Your task to perform on an android device: see creations saved in the google photos Image 0: 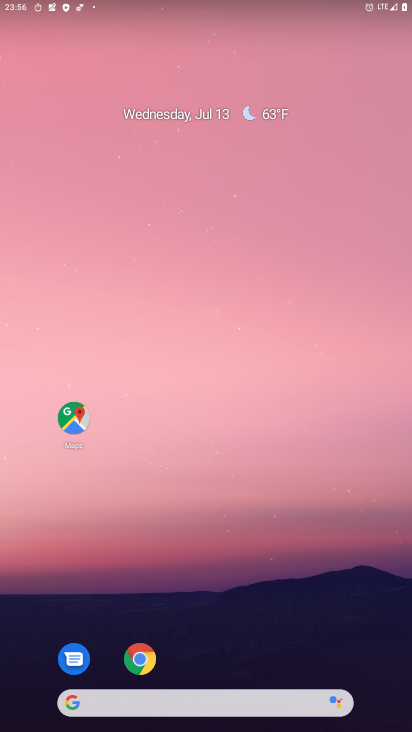
Step 0: drag from (292, 614) to (300, 78)
Your task to perform on an android device: see creations saved in the google photos Image 1: 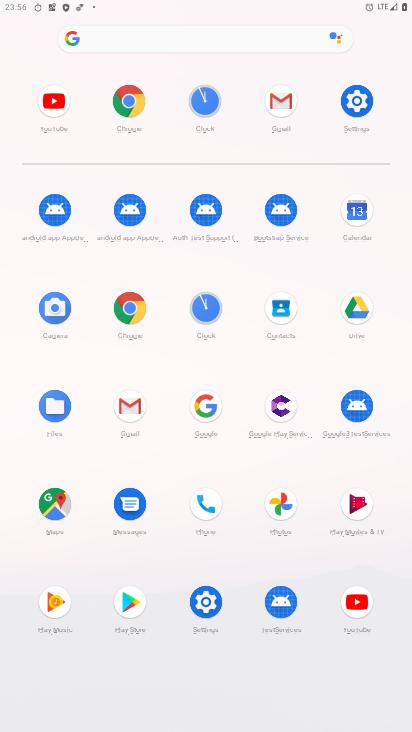
Step 1: click (286, 505)
Your task to perform on an android device: see creations saved in the google photos Image 2: 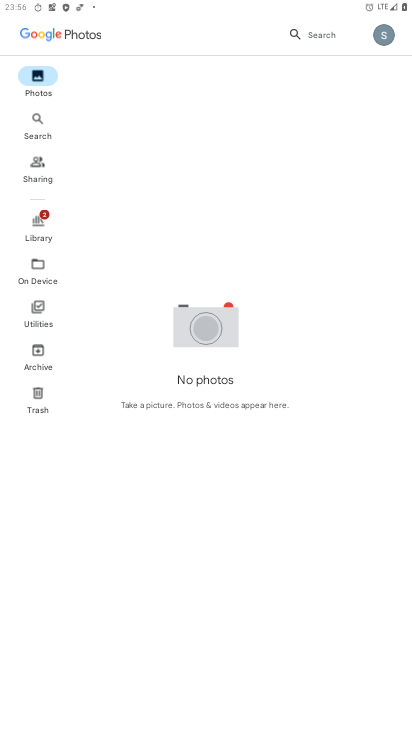
Step 2: task complete